Your task to perform on an android device: Go to internet settings Image 0: 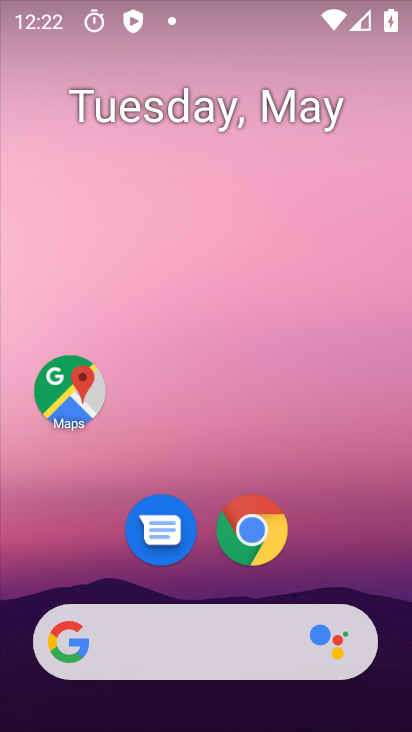
Step 0: drag from (320, 486) to (192, 17)
Your task to perform on an android device: Go to internet settings Image 1: 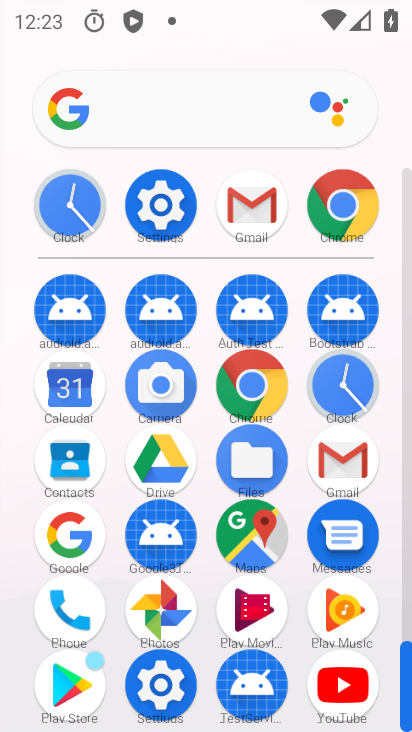
Step 1: drag from (15, 589) to (13, 225)
Your task to perform on an android device: Go to internet settings Image 2: 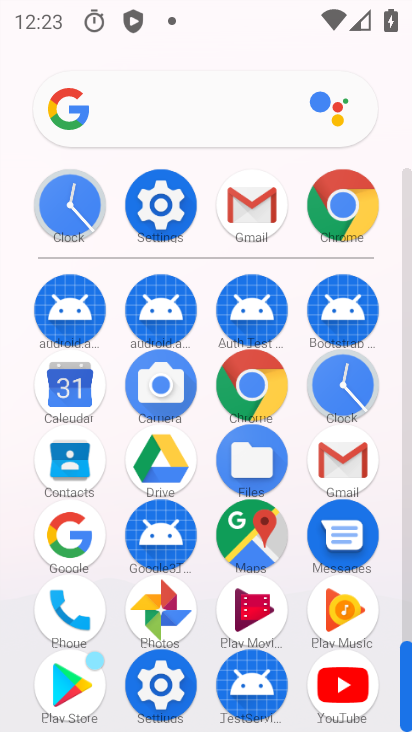
Step 2: click (158, 683)
Your task to perform on an android device: Go to internet settings Image 3: 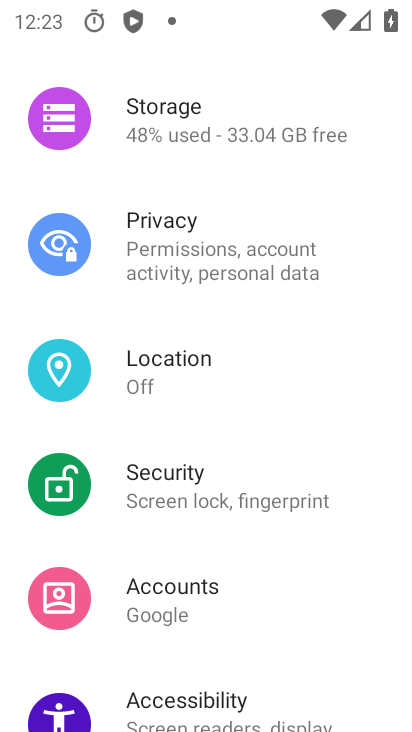
Step 3: drag from (278, 637) to (287, 88)
Your task to perform on an android device: Go to internet settings Image 4: 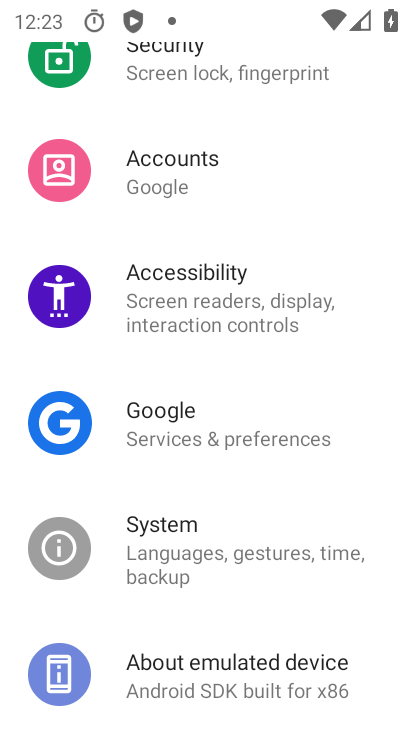
Step 4: drag from (304, 555) to (296, 145)
Your task to perform on an android device: Go to internet settings Image 5: 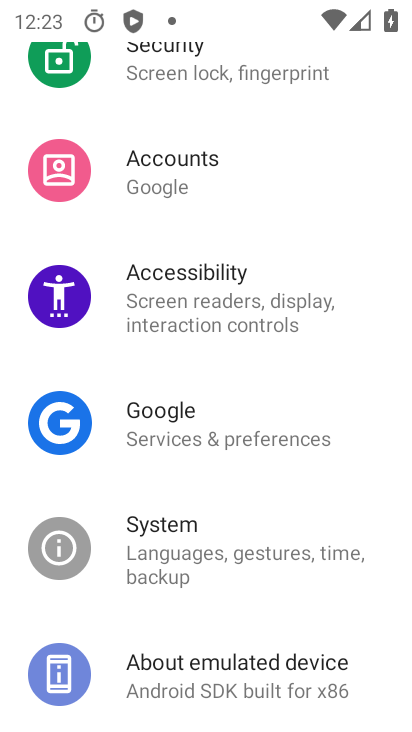
Step 5: drag from (296, 167) to (296, 654)
Your task to perform on an android device: Go to internet settings Image 6: 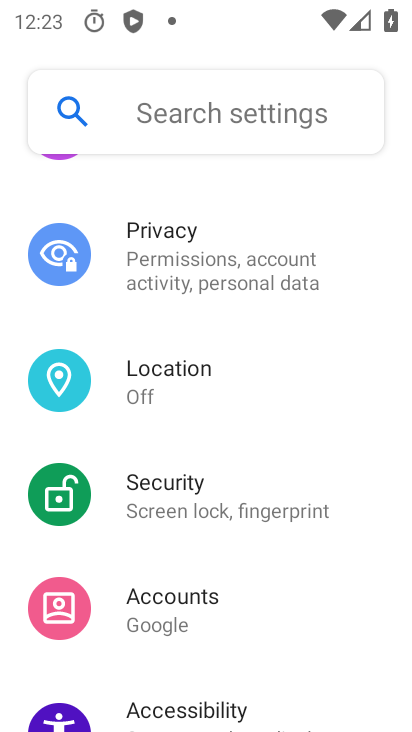
Step 6: drag from (303, 215) to (303, 637)
Your task to perform on an android device: Go to internet settings Image 7: 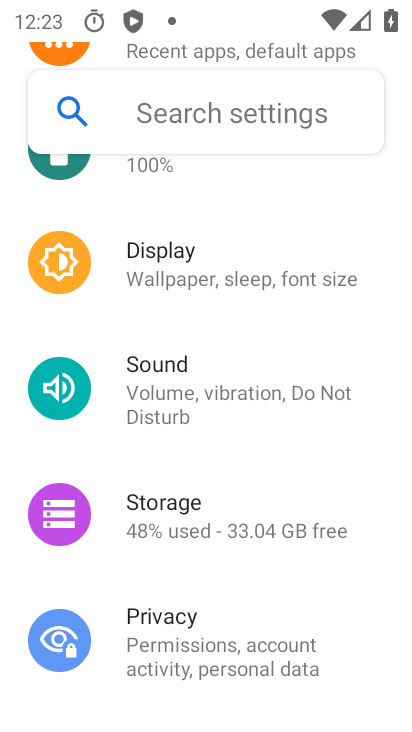
Step 7: drag from (299, 200) to (299, 664)
Your task to perform on an android device: Go to internet settings Image 8: 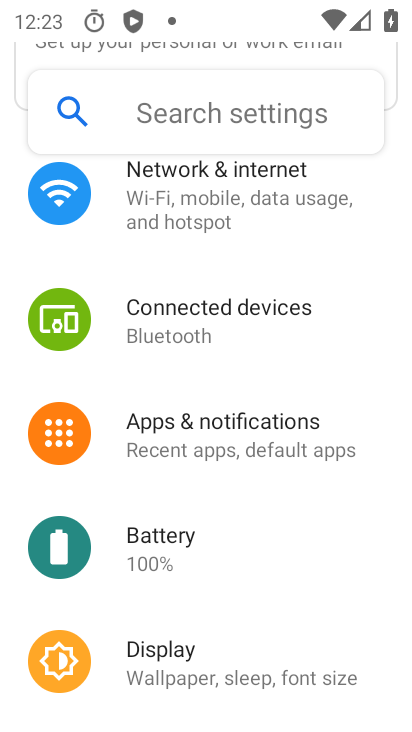
Step 8: drag from (313, 262) to (316, 598)
Your task to perform on an android device: Go to internet settings Image 9: 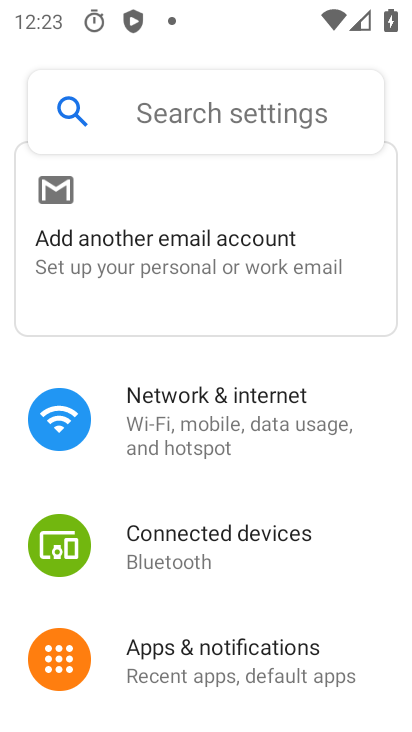
Step 9: drag from (315, 585) to (311, 165)
Your task to perform on an android device: Go to internet settings Image 10: 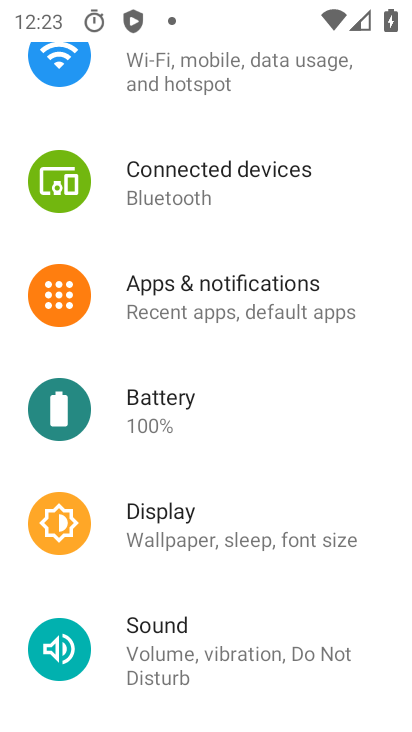
Step 10: drag from (314, 591) to (306, 146)
Your task to perform on an android device: Go to internet settings Image 11: 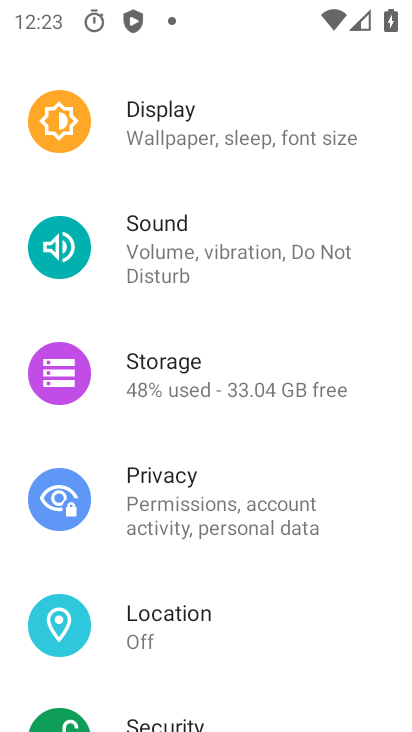
Step 11: drag from (306, 167) to (304, 695)
Your task to perform on an android device: Go to internet settings Image 12: 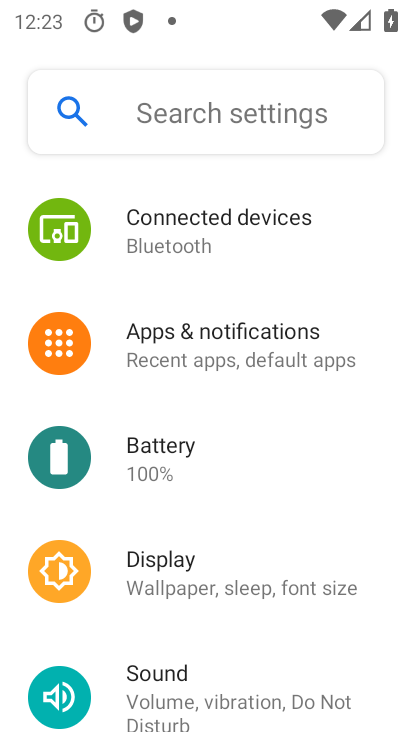
Step 12: drag from (312, 290) to (300, 686)
Your task to perform on an android device: Go to internet settings Image 13: 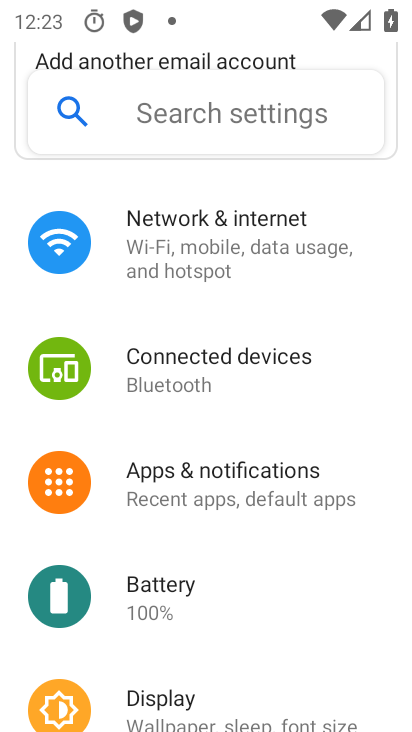
Step 13: click (247, 274)
Your task to perform on an android device: Go to internet settings Image 14: 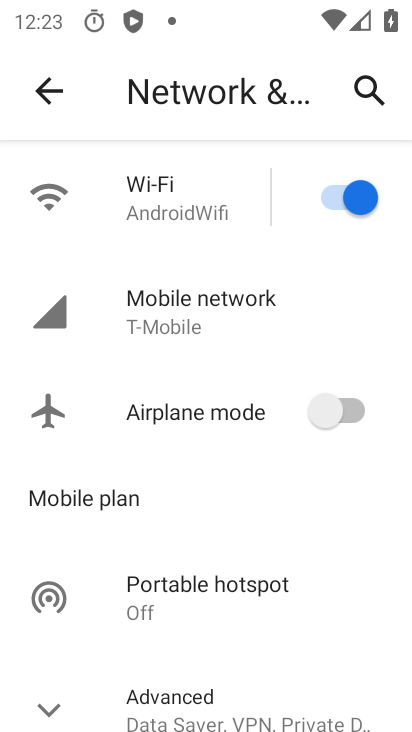
Step 14: click (194, 308)
Your task to perform on an android device: Go to internet settings Image 15: 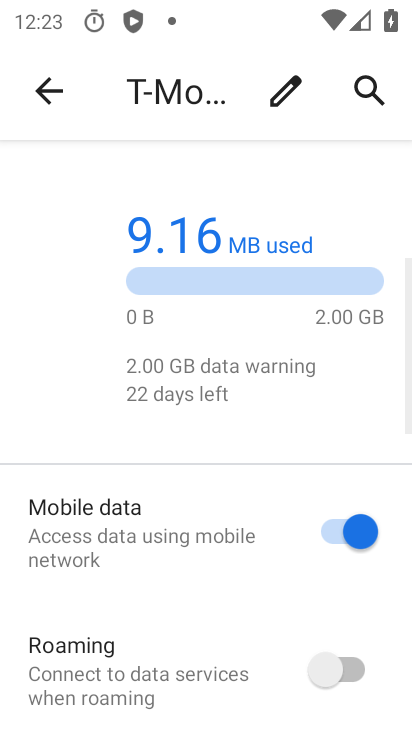
Step 15: drag from (194, 600) to (256, 151)
Your task to perform on an android device: Go to internet settings Image 16: 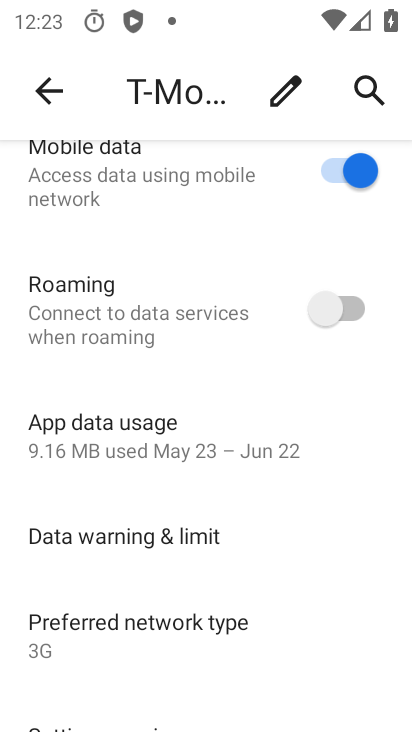
Step 16: drag from (205, 569) to (208, 161)
Your task to perform on an android device: Go to internet settings Image 17: 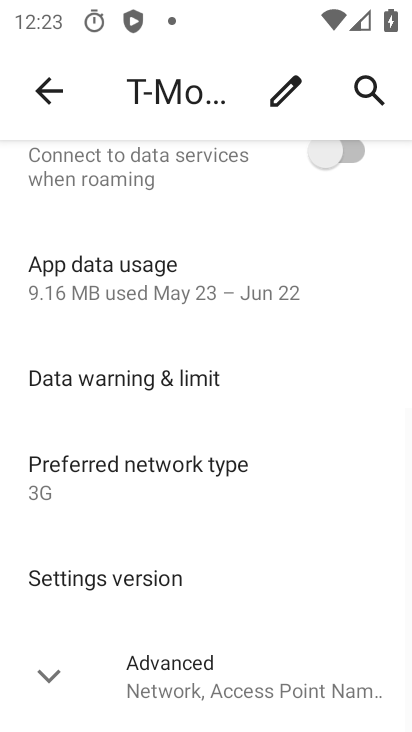
Step 17: drag from (214, 186) to (209, 682)
Your task to perform on an android device: Go to internet settings Image 18: 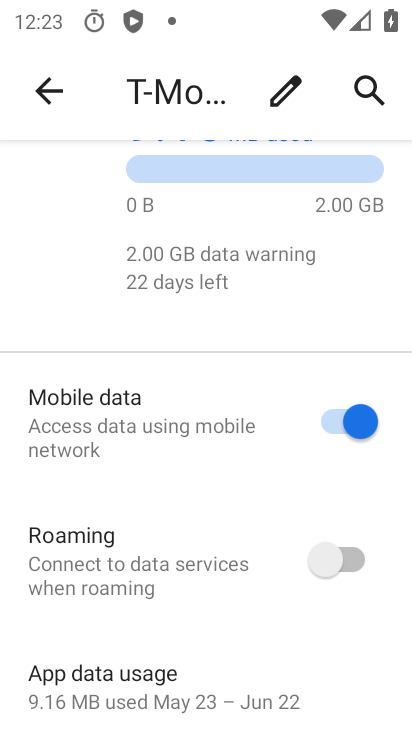
Step 18: drag from (210, 507) to (210, 708)
Your task to perform on an android device: Go to internet settings Image 19: 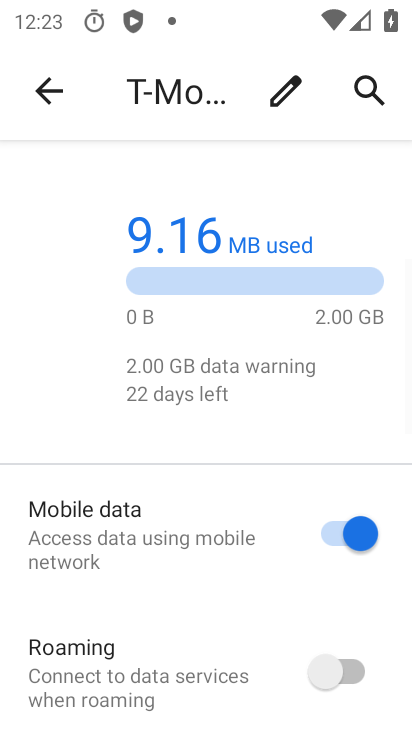
Step 19: drag from (170, 547) to (222, 154)
Your task to perform on an android device: Go to internet settings Image 20: 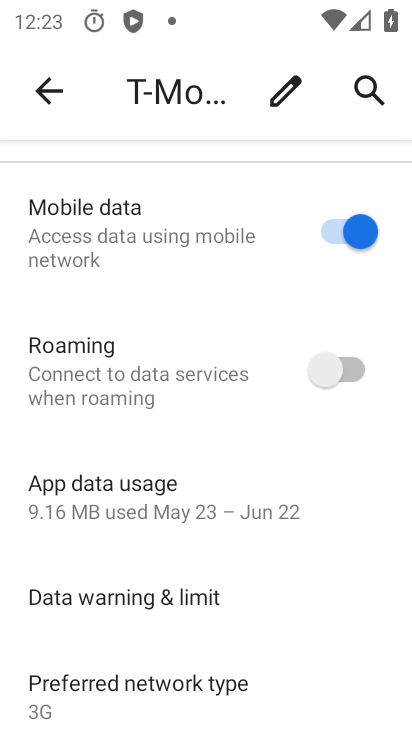
Step 20: drag from (110, 644) to (181, 168)
Your task to perform on an android device: Go to internet settings Image 21: 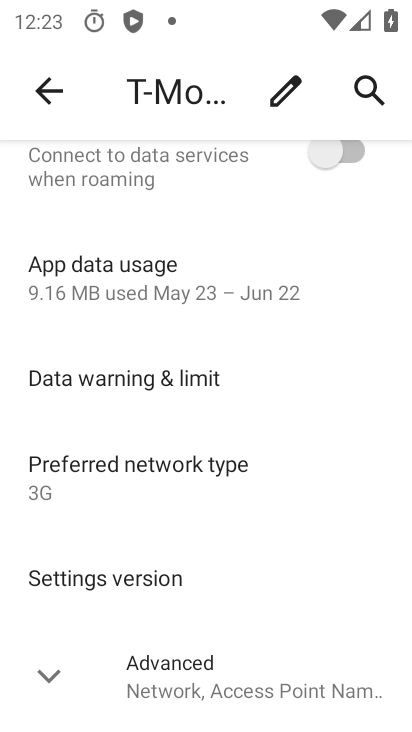
Step 21: click (57, 665)
Your task to perform on an android device: Go to internet settings Image 22: 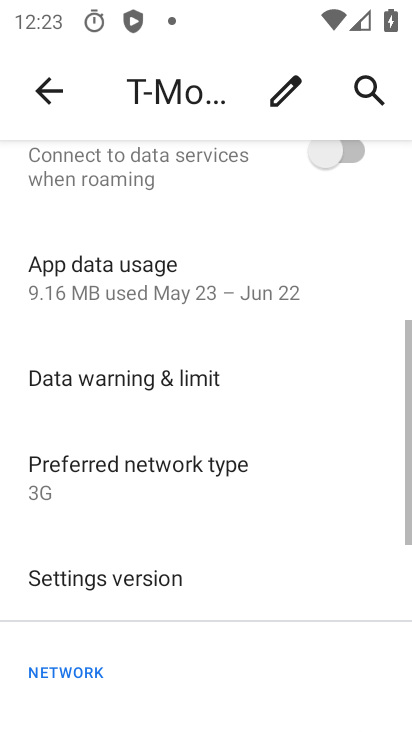
Step 22: task complete